Your task to perform on an android device: Open the calendar and show me this week's events? Image 0: 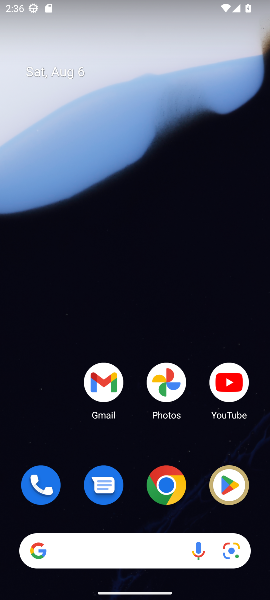
Step 0: drag from (131, 462) to (158, 57)
Your task to perform on an android device: Open the calendar and show me this week's events? Image 1: 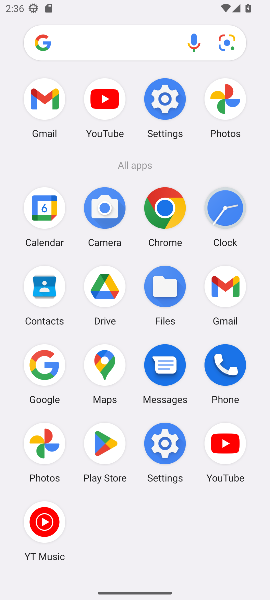
Step 1: click (43, 203)
Your task to perform on an android device: Open the calendar and show me this week's events? Image 2: 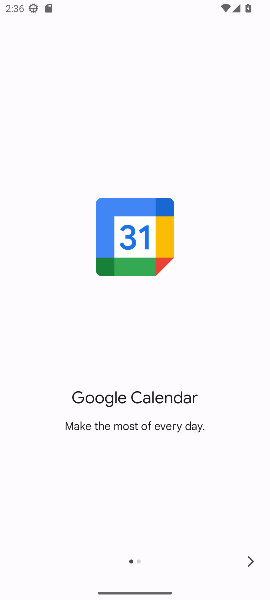
Step 2: click (251, 558)
Your task to perform on an android device: Open the calendar and show me this week's events? Image 3: 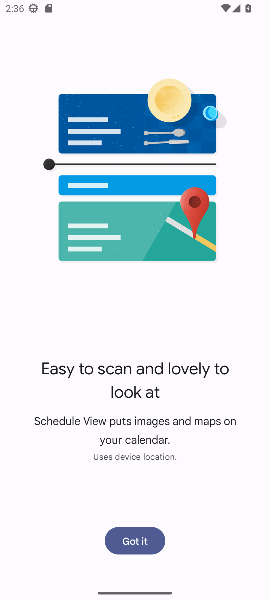
Step 3: click (134, 541)
Your task to perform on an android device: Open the calendar and show me this week's events? Image 4: 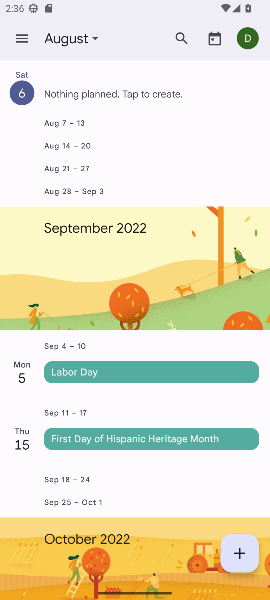
Step 4: click (22, 39)
Your task to perform on an android device: Open the calendar and show me this week's events? Image 5: 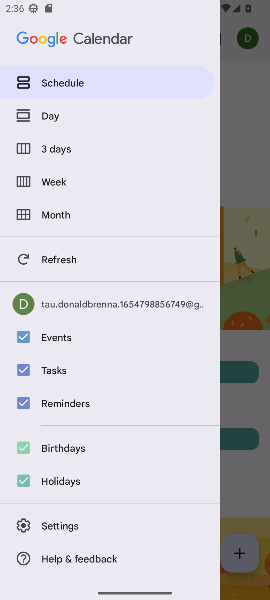
Step 5: click (37, 176)
Your task to perform on an android device: Open the calendar and show me this week's events? Image 6: 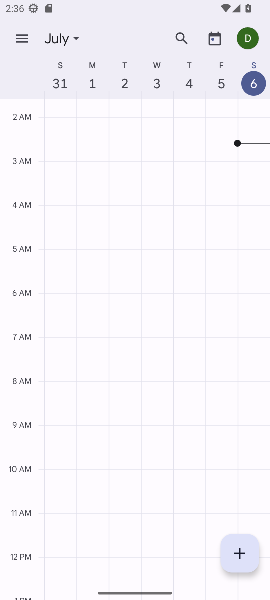
Step 6: click (22, 38)
Your task to perform on an android device: Open the calendar and show me this week's events? Image 7: 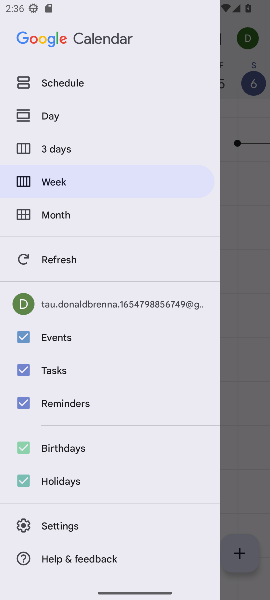
Step 7: click (19, 373)
Your task to perform on an android device: Open the calendar and show me this week's events? Image 8: 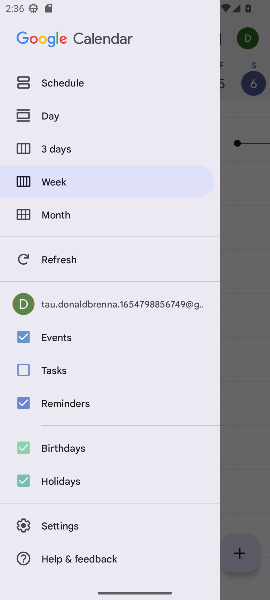
Step 8: click (20, 399)
Your task to perform on an android device: Open the calendar and show me this week's events? Image 9: 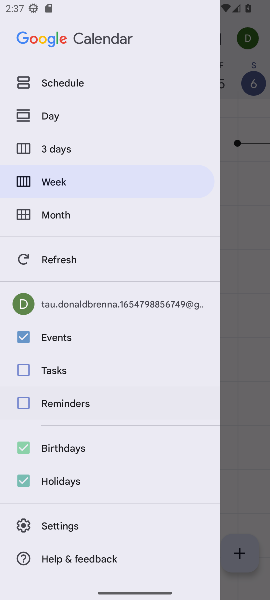
Step 9: click (26, 449)
Your task to perform on an android device: Open the calendar and show me this week's events? Image 10: 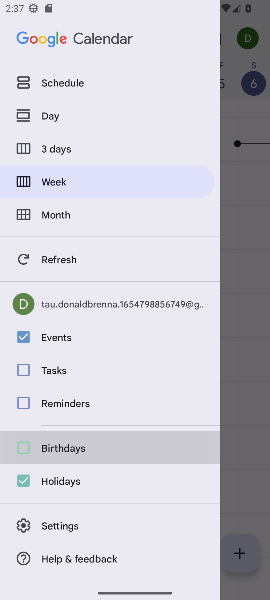
Step 10: click (23, 481)
Your task to perform on an android device: Open the calendar and show me this week's events? Image 11: 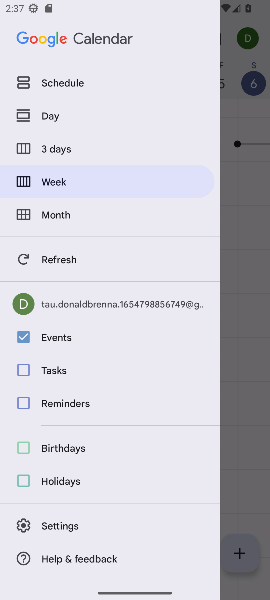
Step 11: click (54, 79)
Your task to perform on an android device: Open the calendar and show me this week's events? Image 12: 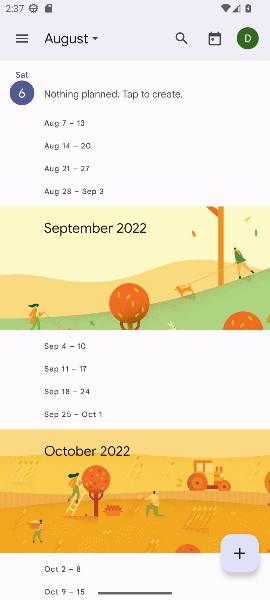
Step 12: click (27, 89)
Your task to perform on an android device: Open the calendar and show me this week's events? Image 13: 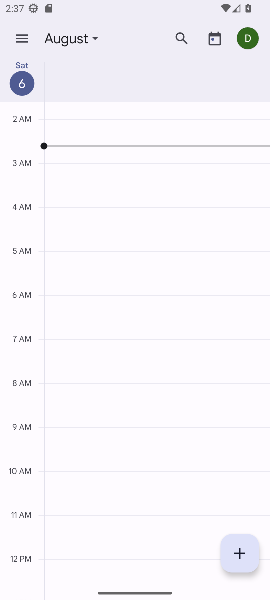
Step 13: task complete